Your task to perform on an android device: set an alarm Image 0: 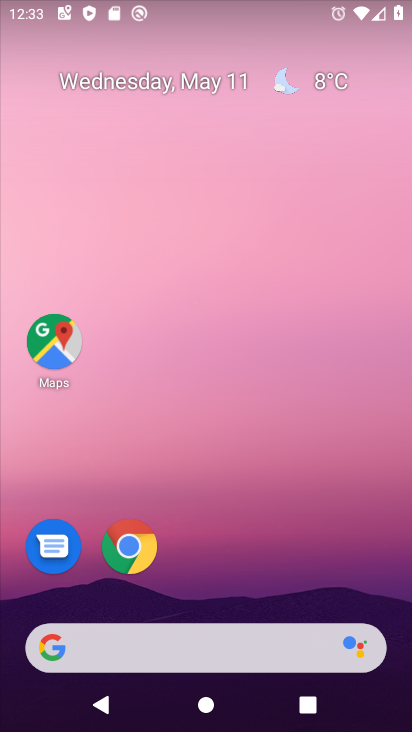
Step 0: drag from (221, 669) to (315, 36)
Your task to perform on an android device: set an alarm Image 1: 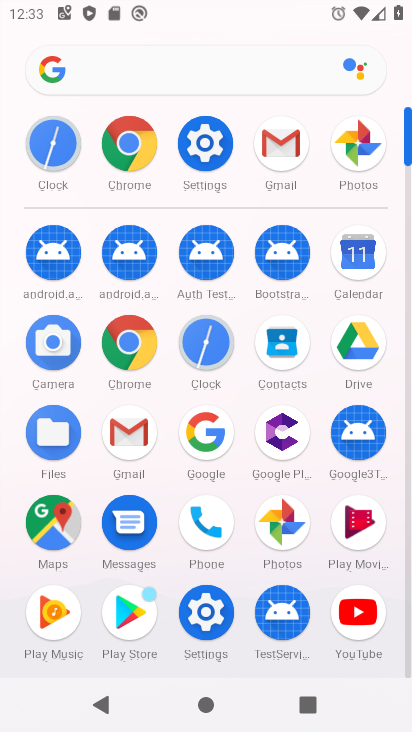
Step 1: click (214, 357)
Your task to perform on an android device: set an alarm Image 2: 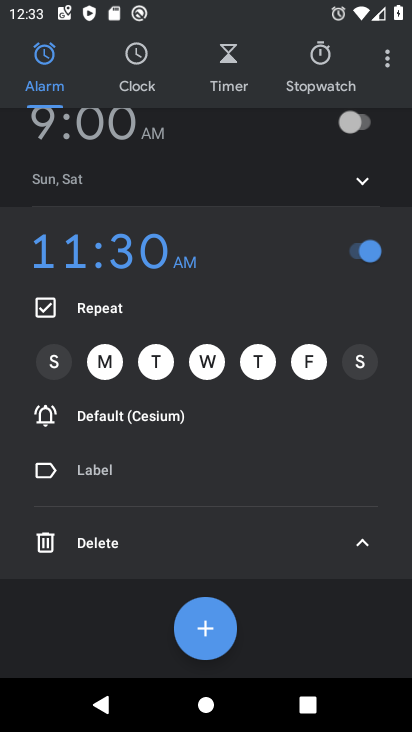
Step 2: click (68, 165)
Your task to perform on an android device: set an alarm Image 3: 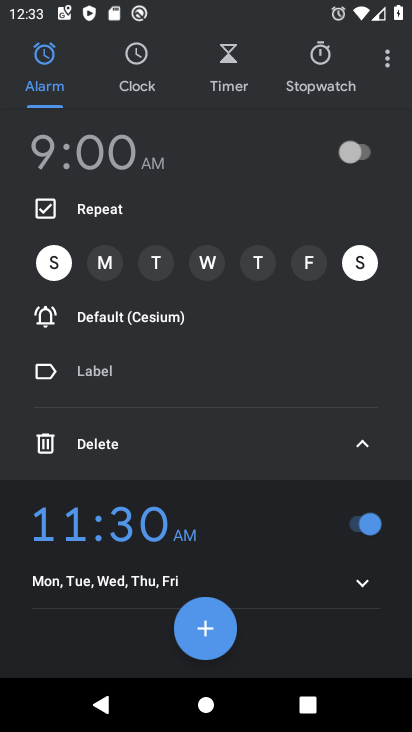
Step 3: click (102, 143)
Your task to perform on an android device: set an alarm Image 4: 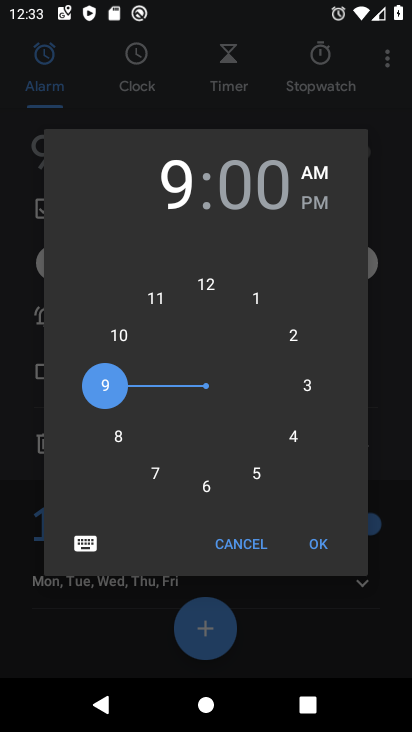
Step 4: click (127, 343)
Your task to perform on an android device: set an alarm Image 5: 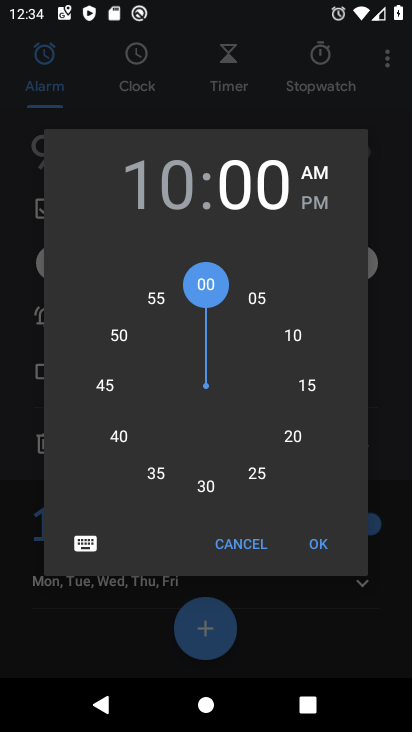
Step 5: click (324, 542)
Your task to perform on an android device: set an alarm Image 6: 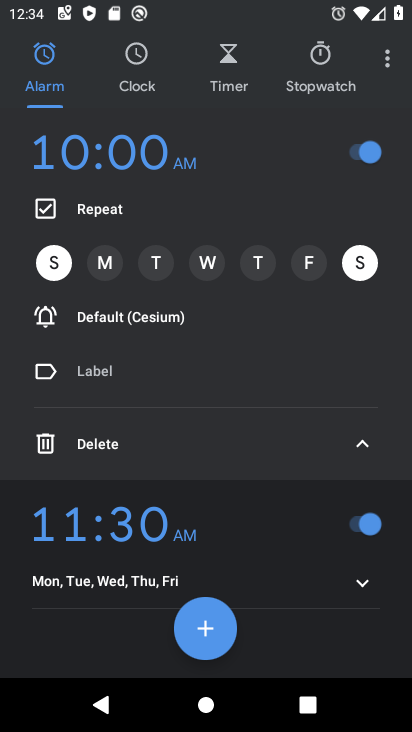
Step 6: task complete